Your task to perform on an android device: open app "Pandora - Music & Podcasts" (install if not already installed) Image 0: 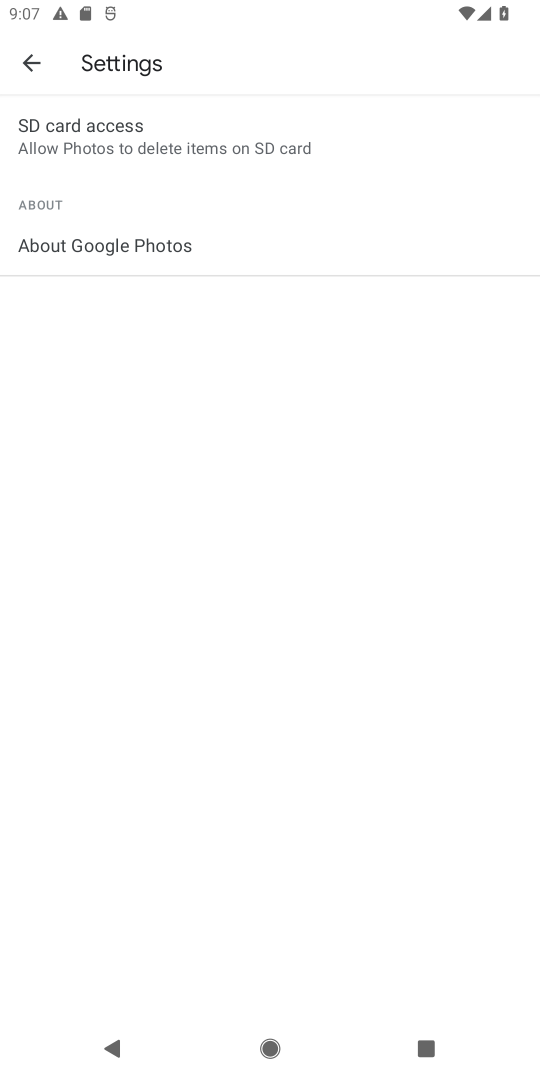
Step 0: press home button
Your task to perform on an android device: open app "Pandora - Music & Podcasts" (install if not already installed) Image 1: 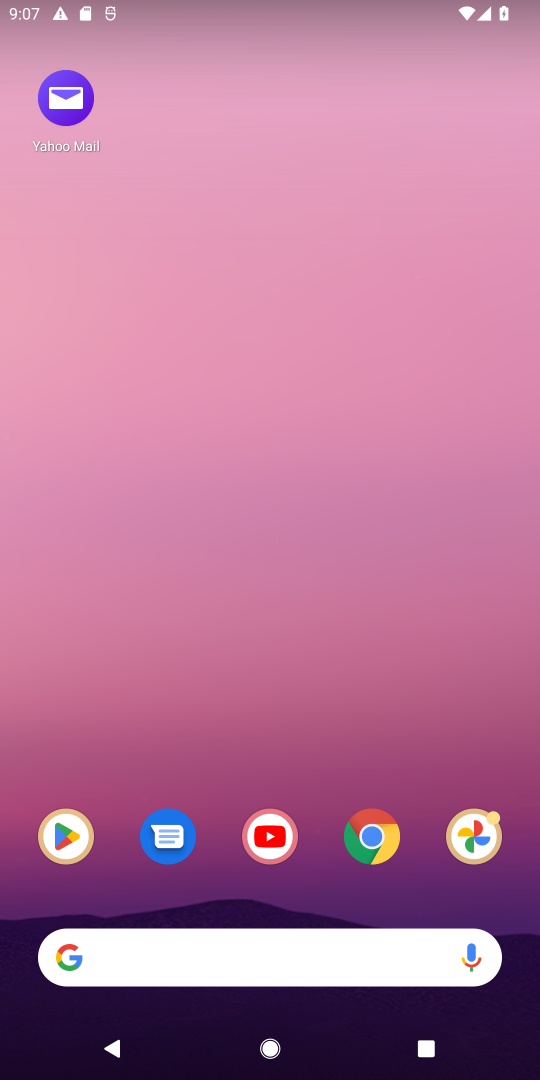
Step 1: drag from (446, 931) to (190, 30)
Your task to perform on an android device: open app "Pandora - Music & Podcasts" (install if not already installed) Image 2: 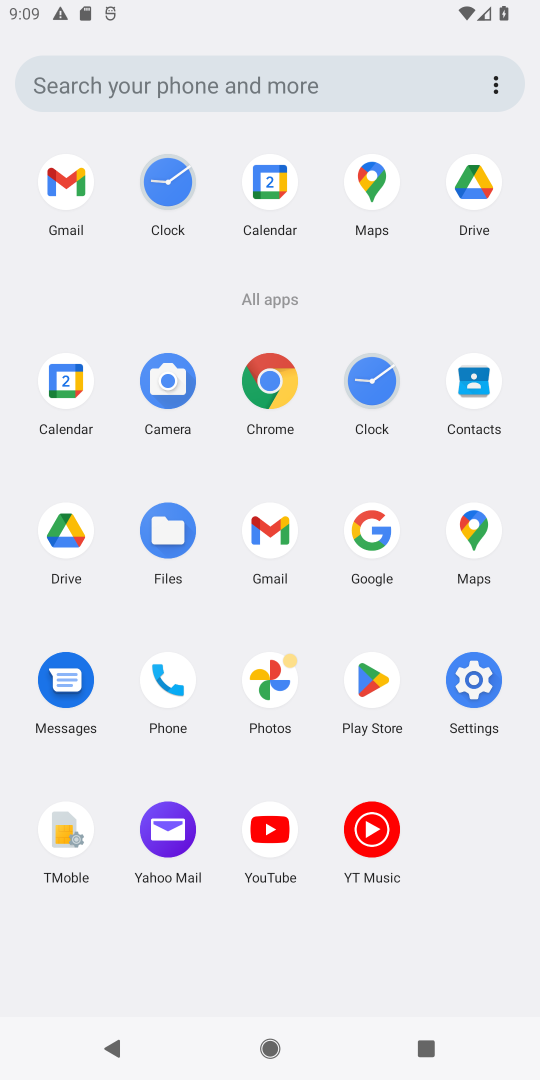
Step 2: click (357, 675)
Your task to perform on an android device: open app "Pandora - Music & Podcasts" (install if not already installed) Image 3: 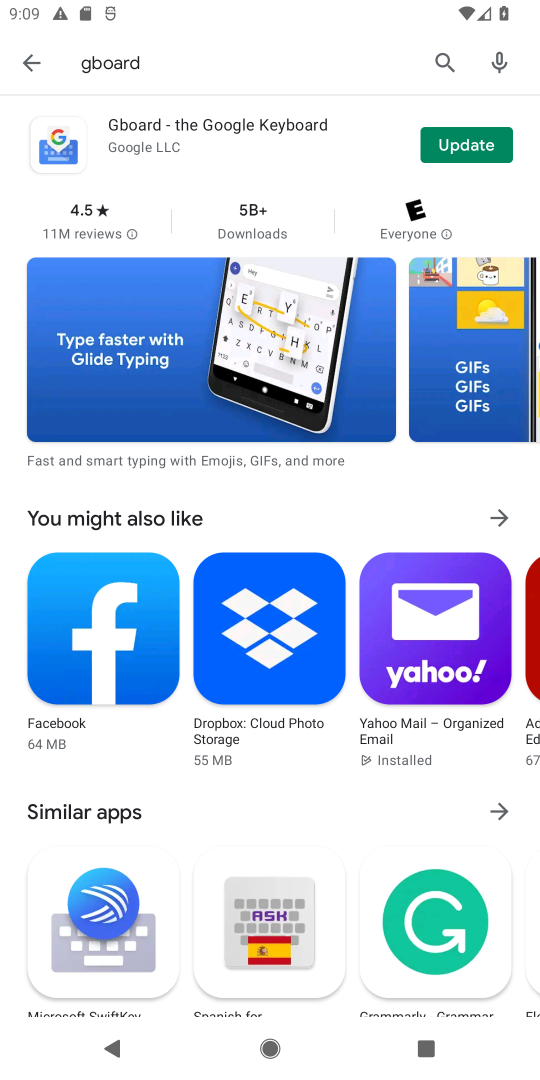
Step 3: press back button
Your task to perform on an android device: open app "Pandora - Music & Podcasts" (install if not already installed) Image 4: 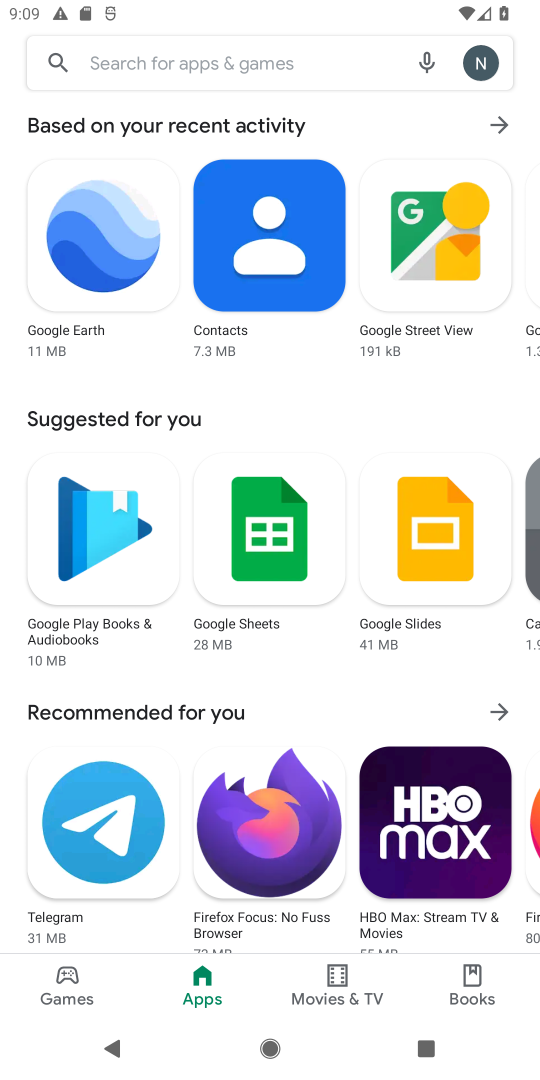
Step 4: click (164, 64)
Your task to perform on an android device: open app "Pandora - Music & Podcasts" (install if not already installed) Image 5: 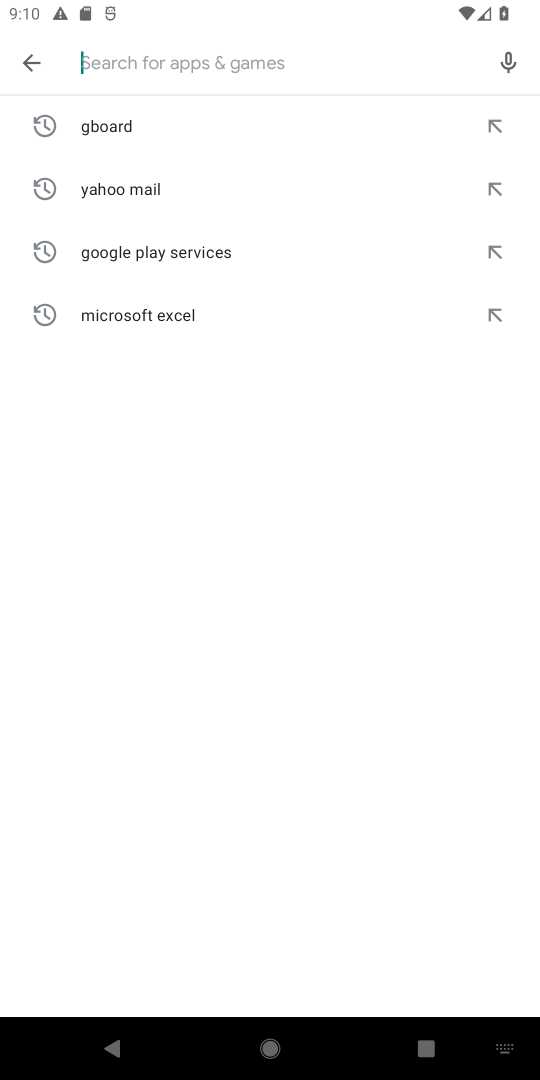
Step 5: type "Pandora - Music & Podcasts"
Your task to perform on an android device: open app "Pandora - Music & Podcasts" (install if not already installed) Image 6: 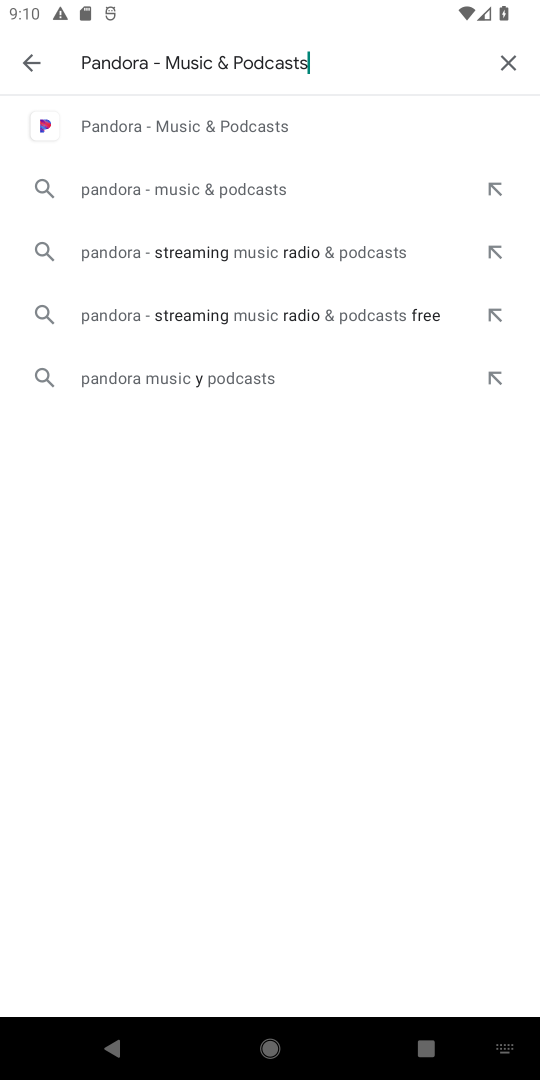
Step 6: click (183, 124)
Your task to perform on an android device: open app "Pandora - Music & Podcasts" (install if not already installed) Image 7: 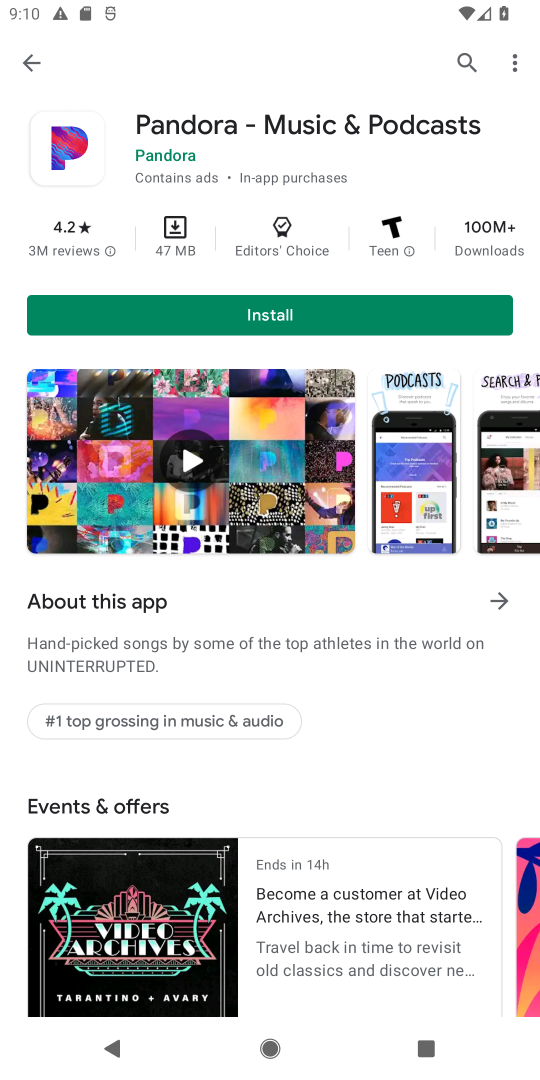
Step 7: task complete